Your task to perform on an android device: turn on the 24-hour format for clock Image 0: 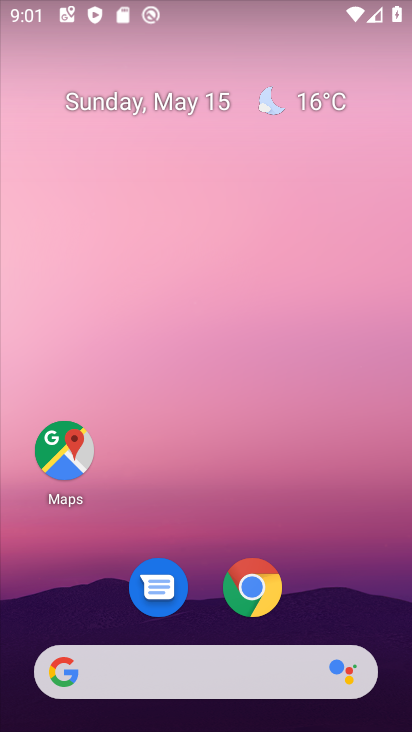
Step 0: drag from (365, 543) to (403, 11)
Your task to perform on an android device: turn on the 24-hour format for clock Image 1: 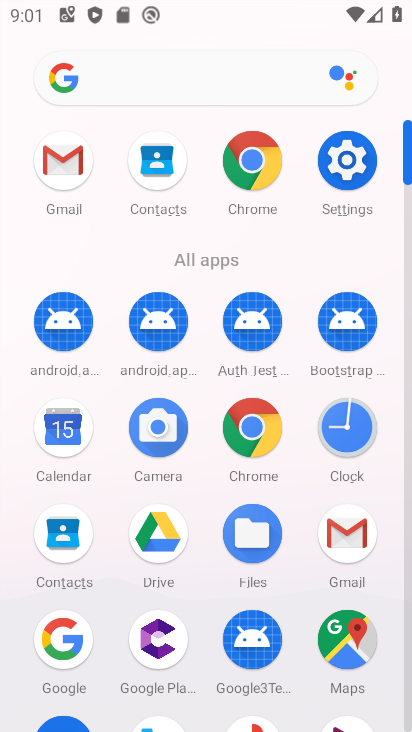
Step 1: click (352, 422)
Your task to perform on an android device: turn on the 24-hour format for clock Image 2: 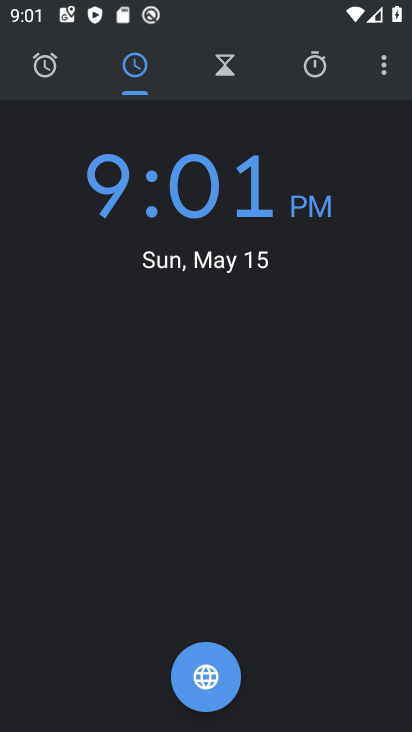
Step 2: drag from (386, 72) to (248, 117)
Your task to perform on an android device: turn on the 24-hour format for clock Image 3: 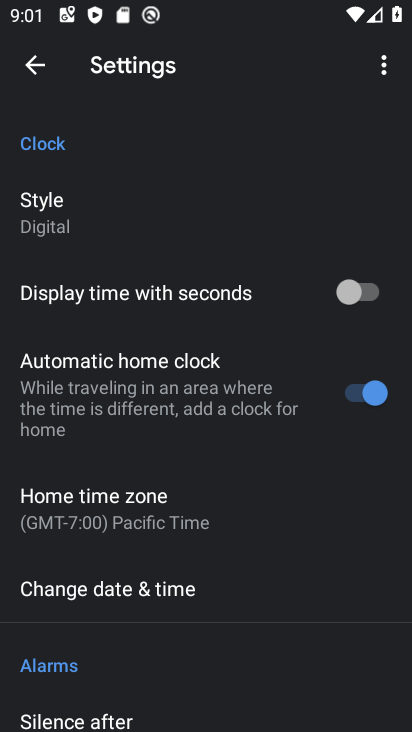
Step 3: click (167, 583)
Your task to perform on an android device: turn on the 24-hour format for clock Image 4: 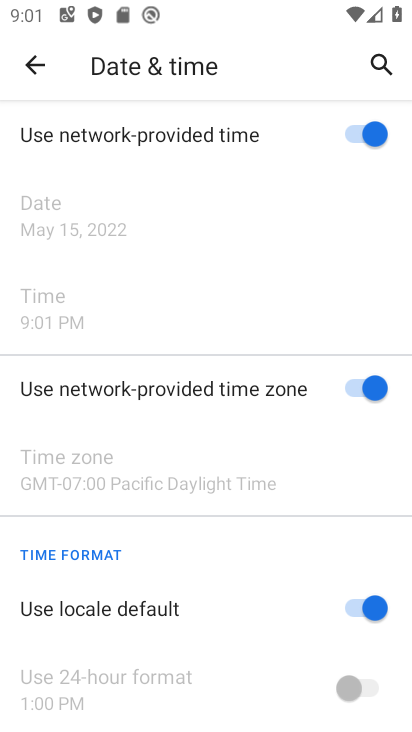
Step 4: drag from (243, 528) to (335, 31)
Your task to perform on an android device: turn on the 24-hour format for clock Image 5: 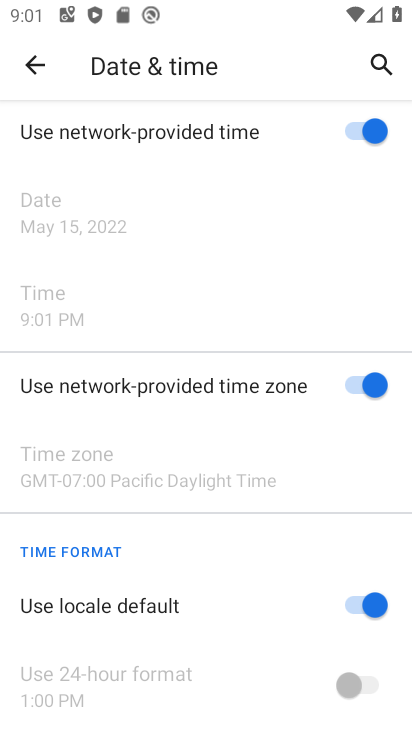
Step 5: click (366, 595)
Your task to perform on an android device: turn on the 24-hour format for clock Image 6: 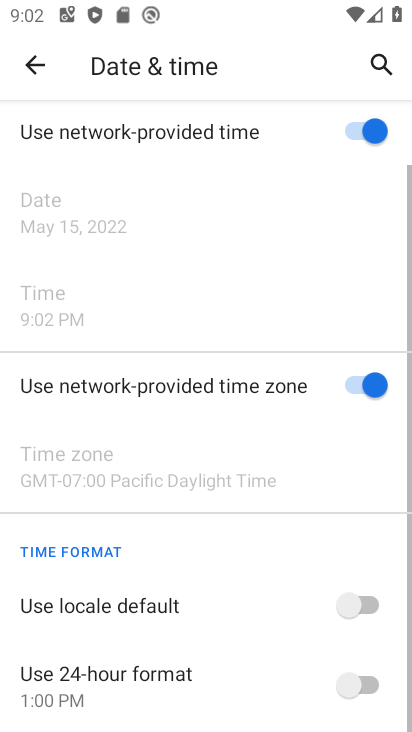
Step 6: click (364, 681)
Your task to perform on an android device: turn on the 24-hour format for clock Image 7: 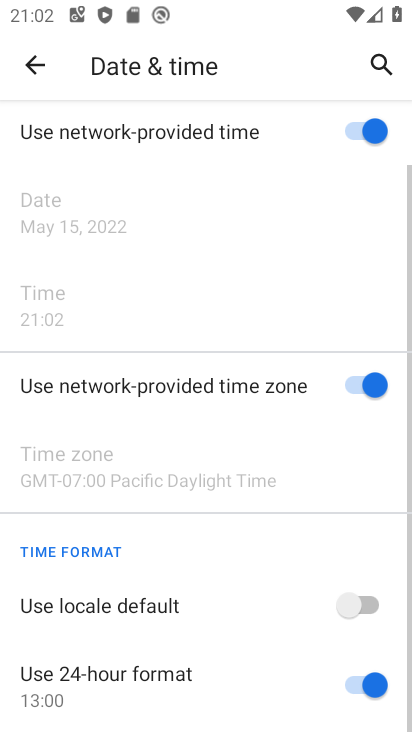
Step 7: task complete